Your task to perform on an android device: toggle data saver in the chrome app Image 0: 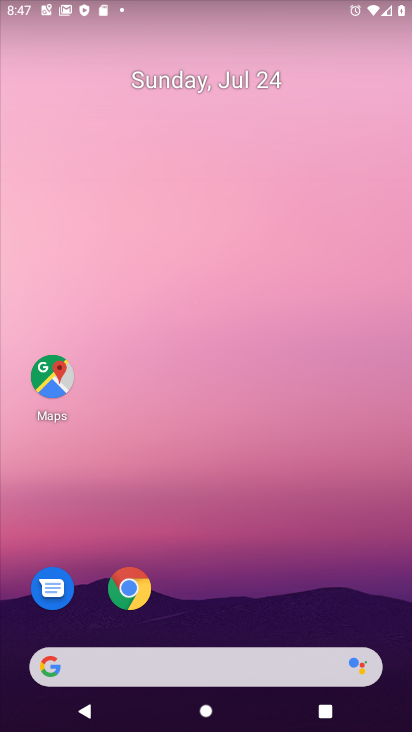
Step 0: drag from (218, 618) to (271, 61)
Your task to perform on an android device: toggle data saver in the chrome app Image 1: 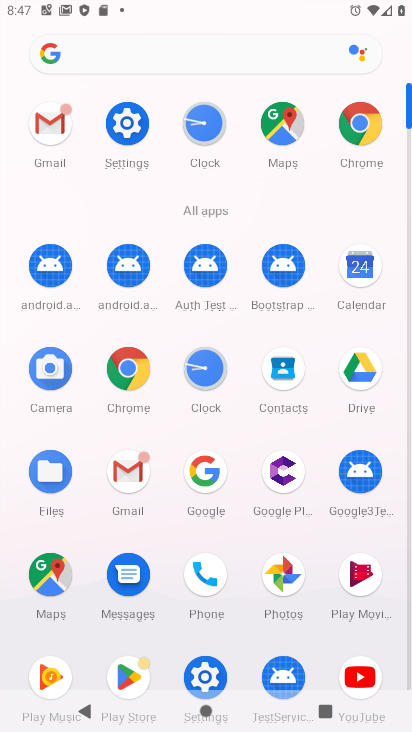
Step 1: click (363, 119)
Your task to perform on an android device: toggle data saver in the chrome app Image 2: 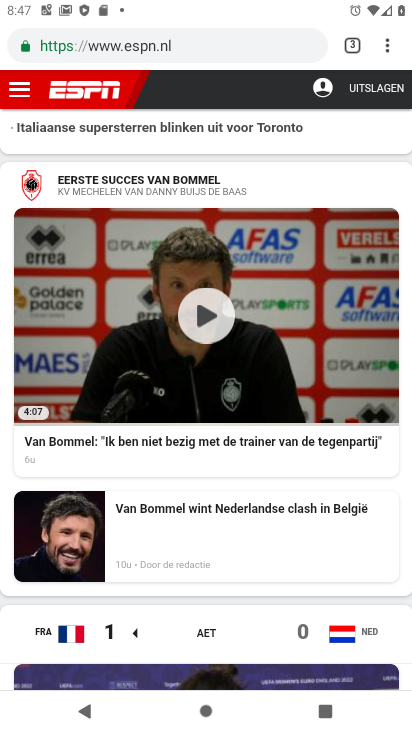
Step 2: press home button
Your task to perform on an android device: toggle data saver in the chrome app Image 3: 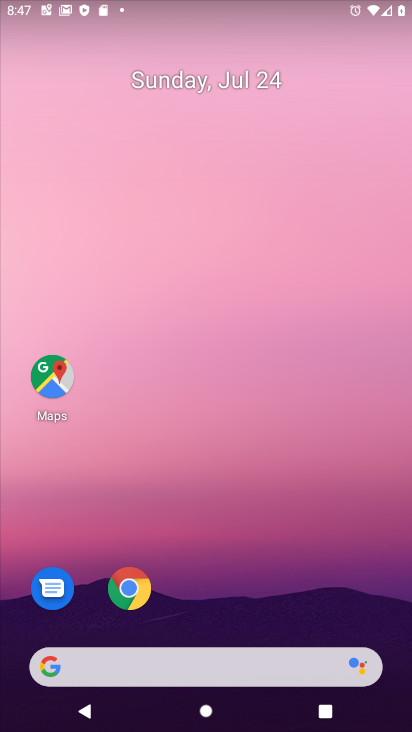
Step 3: click (143, 581)
Your task to perform on an android device: toggle data saver in the chrome app Image 4: 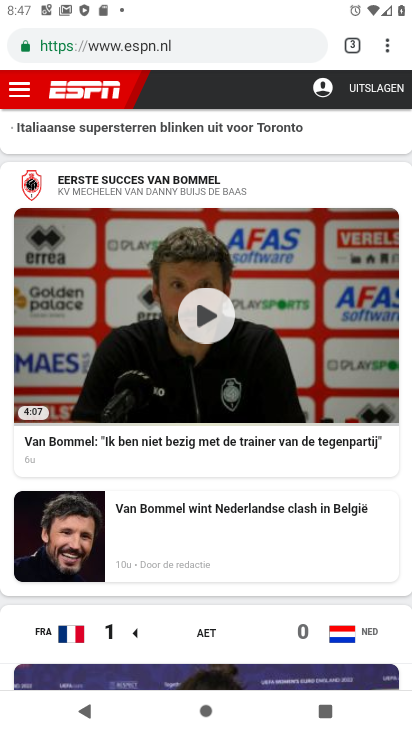
Step 4: click (389, 40)
Your task to perform on an android device: toggle data saver in the chrome app Image 5: 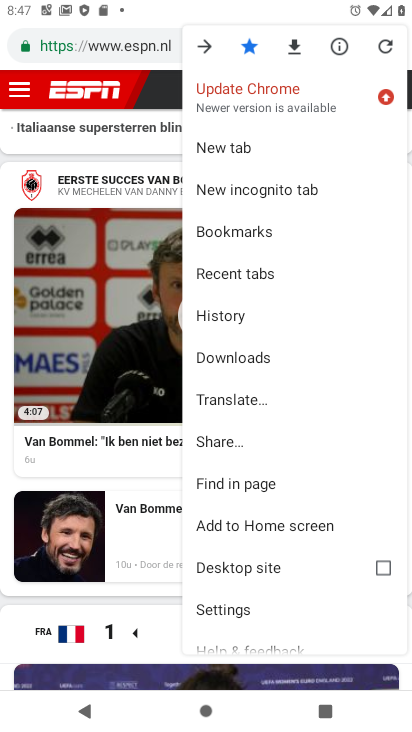
Step 5: click (242, 615)
Your task to perform on an android device: toggle data saver in the chrome app Image 6: 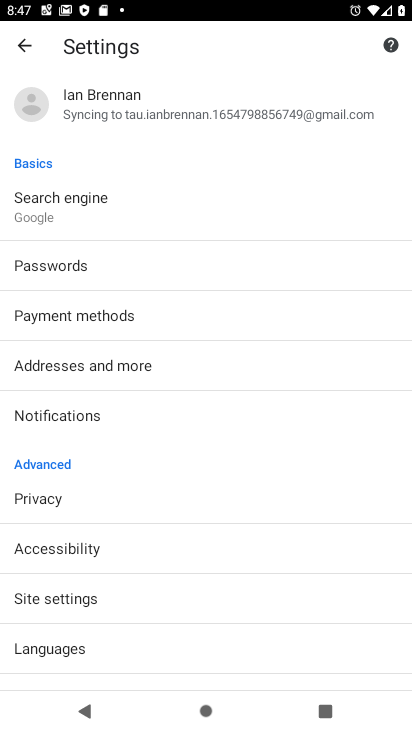
Step 6: drag from (110, 630) to (232, 150)
Your task to perform on an android device: toggle data saver in the chrome app Image 7: 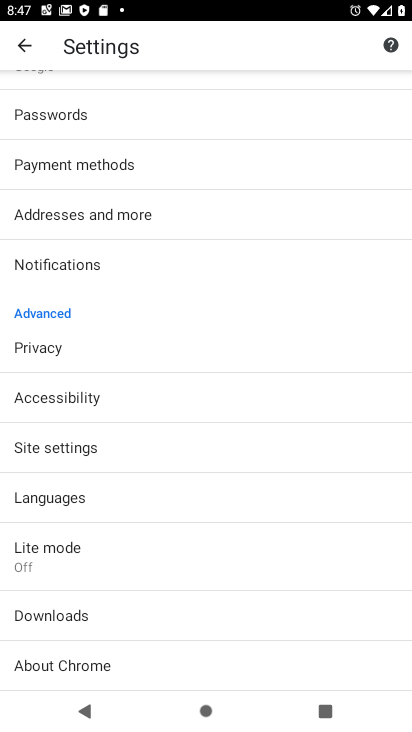
Step 7: click (78, 549)
Your task to perform on an android device: toggle data saver in the chrome app Image 8: 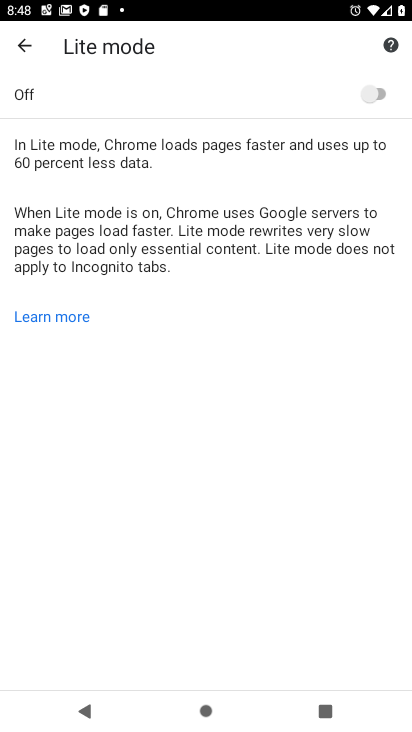
Step 8: click (369, 88)
Your task to perform on an android device: toggle data saver in the chrome app Image 9: 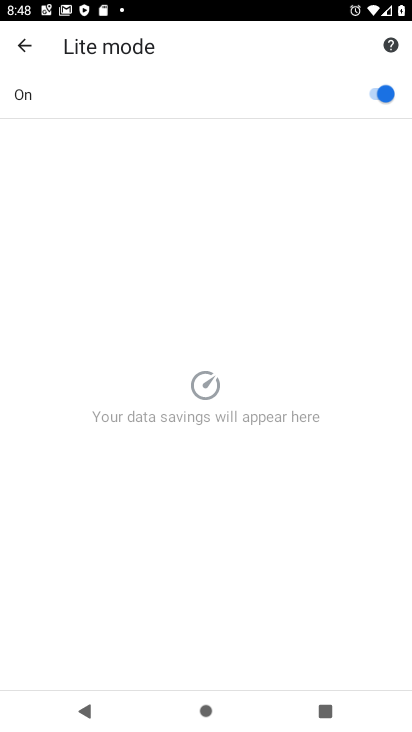
Step 9: task complete